Your task to perform on an android device: Open calendar and show me the fourth week of next month Image 0: 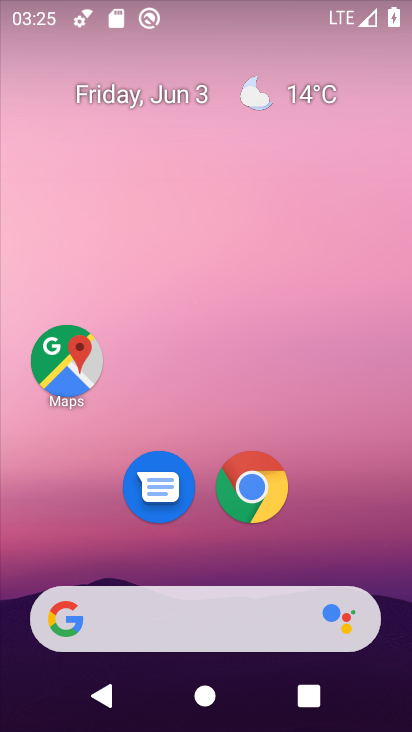
Step 0: click (107, 110)
Your task to perform on an android device: Open calendar and show me the fourth week of next month Image 1: 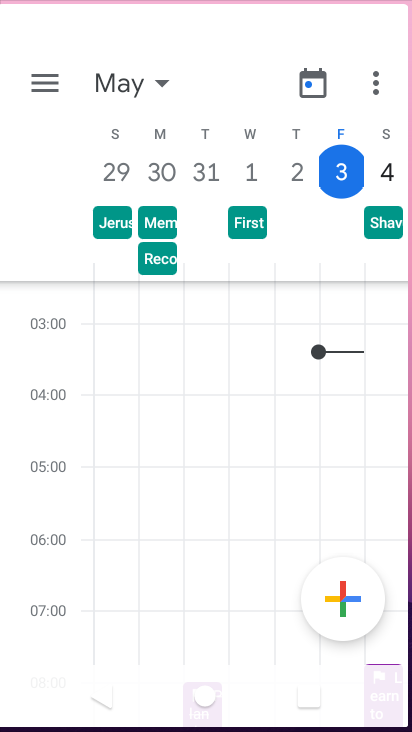
Step 1: click (117, 95)
Your task to perform on an android device: Open calendar and show me the fourth week of next month Image 2: 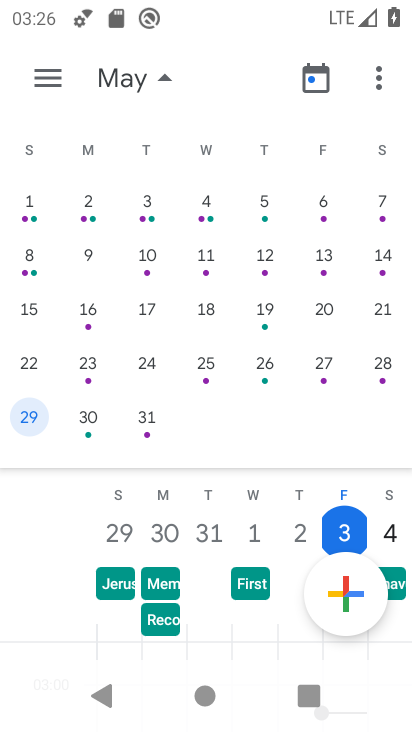
Step 2: drag from (362, 258) to (0, 214)
Your task to perform on an android device: Open calendar and show me the fourth week of next month Image 3: 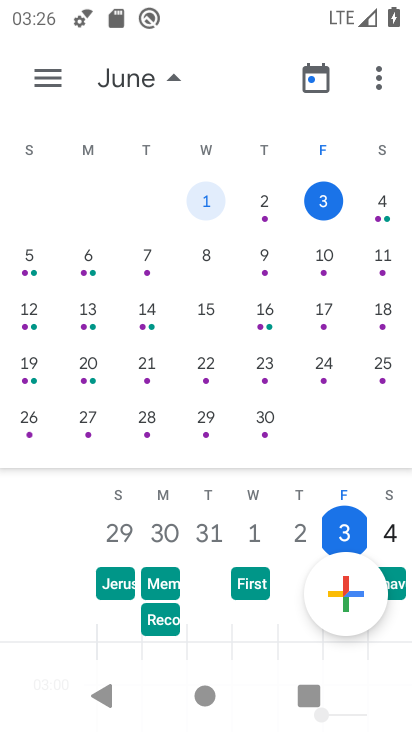
Step 3: drag from (341, 336) to (6, 368)
Your task to perform on an android device: Open calendar and show me the fourth week of next month Image 4: 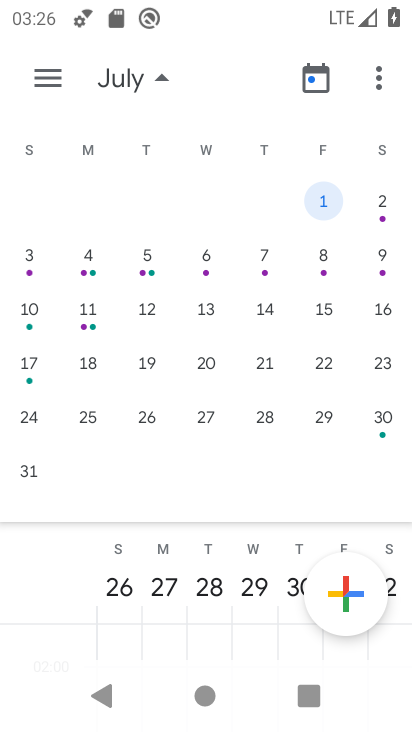
Step 4: click (29, 369)
Your task to perform on an android device: Open calendar and show me the fourth week of next month Image 5: 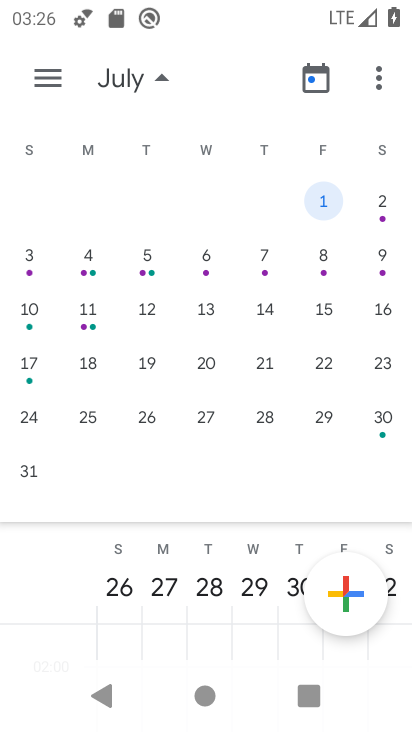
Step 5: click (33, 361)
Your task to perform on an android device: Open calendar and show me the fourth week of next month Image 6: 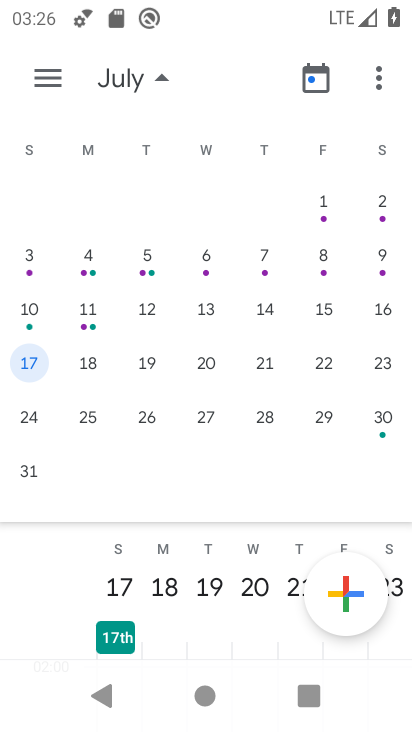
Step 6: task complete